Your task to perform on an android device: Search for Italian restaurants on Maps Image 0: 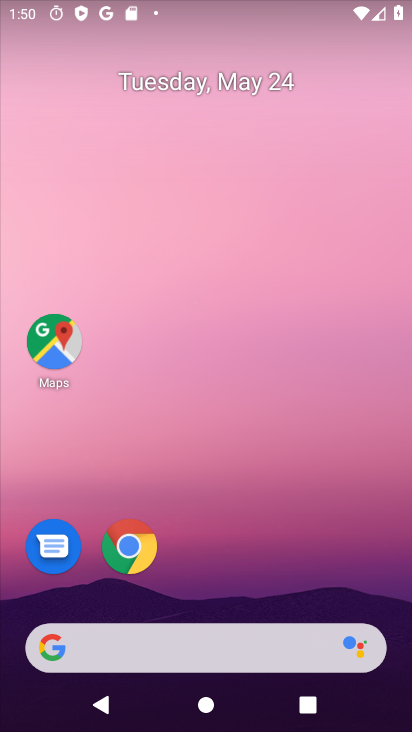
Step 0: click (64, 356)
Your task to perform on an android device: Search for Italian restaurants on Maps Image 1: 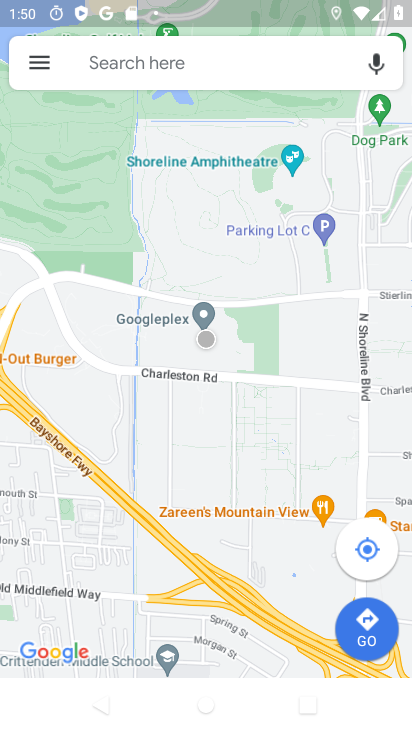
Step 1: click (164, 75)
Your task to perform on an android device: Search for Italian restaurants on Maps Image 2: 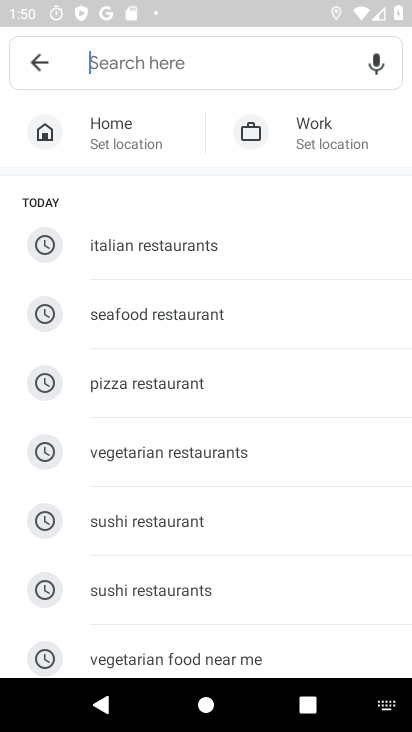
Step 2: click (160, 237)
Your task to perform on an android device: Search for Italian restaurants on Maps Image 3: 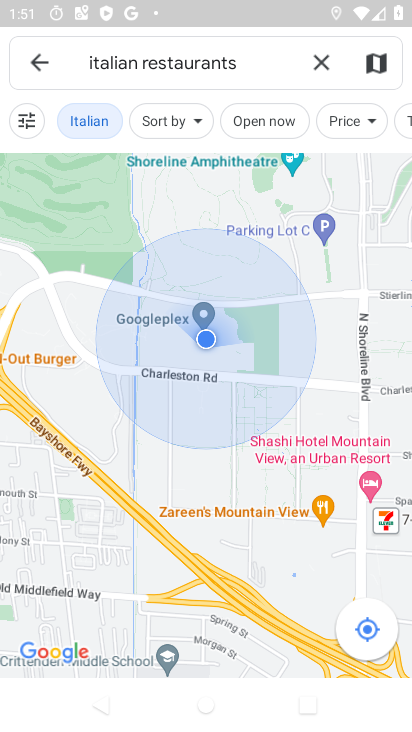
Step 3: task complete